Your task to perform on an android device: toggle sleep mode Image 0: 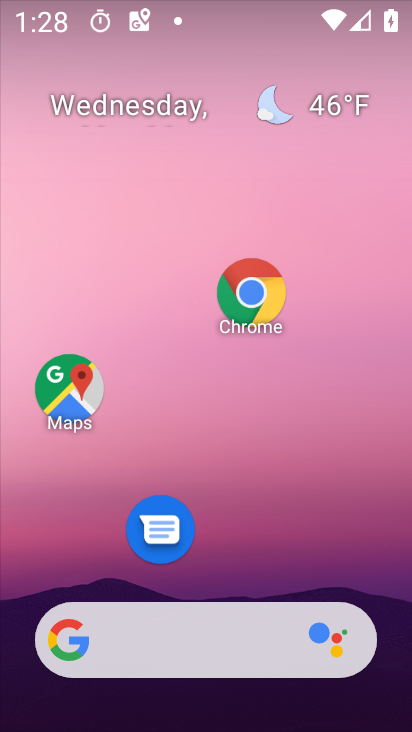
Step 0: task impossible